Your task to perform on an android device: manage bookmarks in the chrome app Image 0: 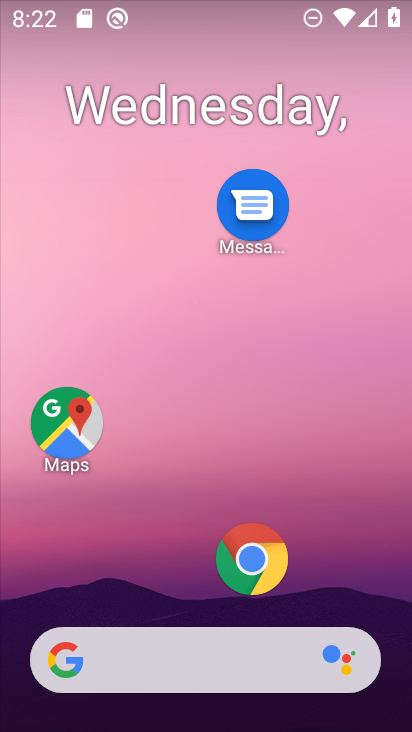
Step 0: click (239, 565)
Your task to perform on an android device: manage bookmarks in the chrome app Image 1: 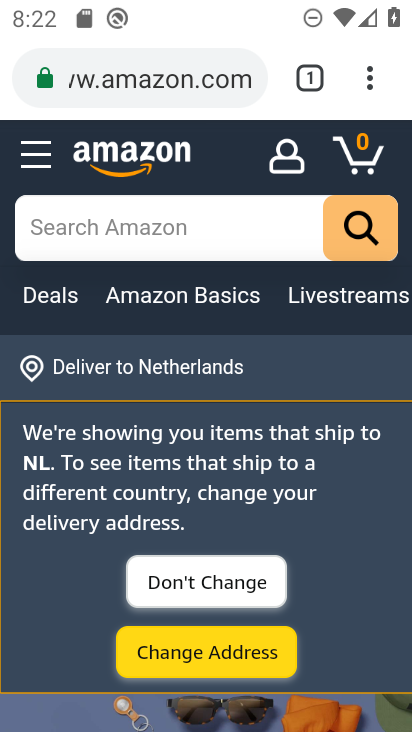
Step 1: click (241, 562)
Your task to perform on an android device: manage bookmarks in the chrome app Image 2: 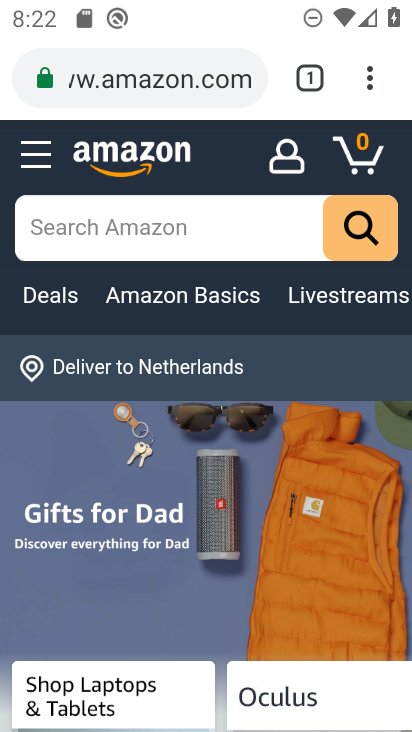
Step 2: click (372, 71)
Your task to perform on an android device: manage bookmarks in the chrome app Image 3: 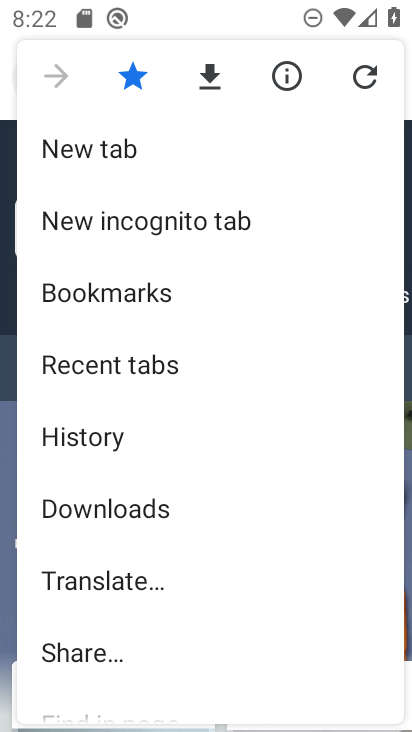
Step 3: click (130, 296)
Your task to perform on an android device: manage bookmarks in the chrome app Image 4: 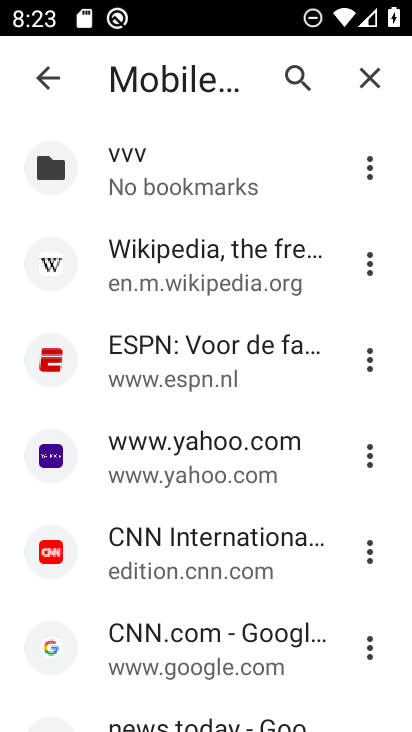
Step 4: task complete